Your task to perform on an android device: turn off picture-in-picture Image 0: 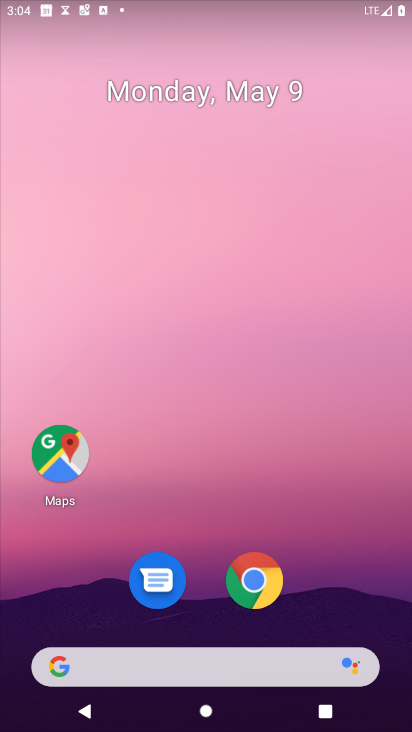
Step 0: drag from (343, 555) to (265, 65)
Your task to perform on an android device: turn off picture-in-picture Image 1: 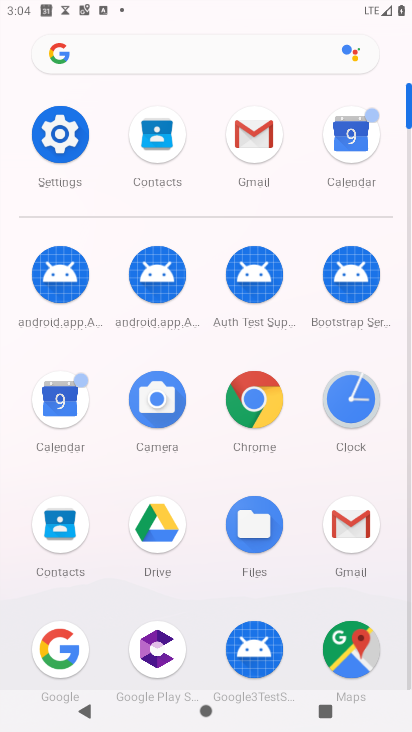
Step 1: click (270, 395)
Your task to perform on an android device: turn off picture-in-picture Image 2: 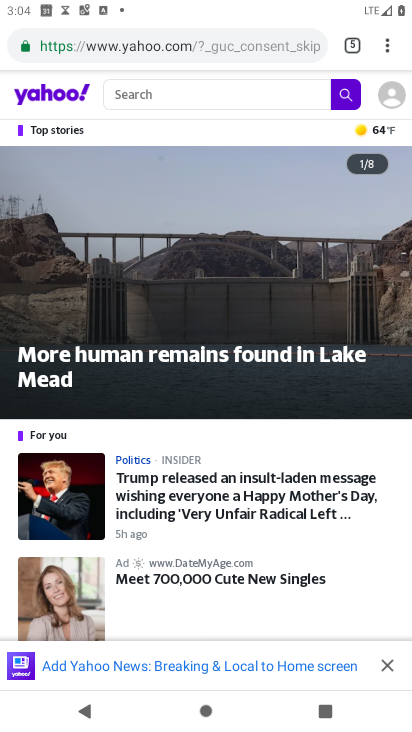
Step 2: press home button
Your task to perform on an android device: turn off picture-in-picture Image 3: 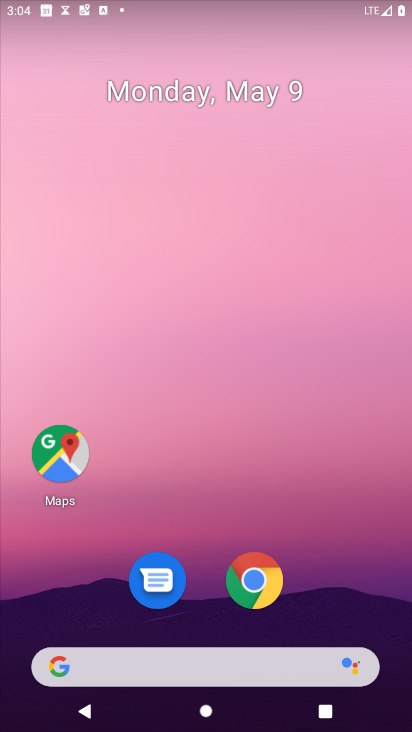
Step 3: drag from (320, 580) to (227, 132)
Your task to perform on an android device: turn off picture-in-picture Image 4: 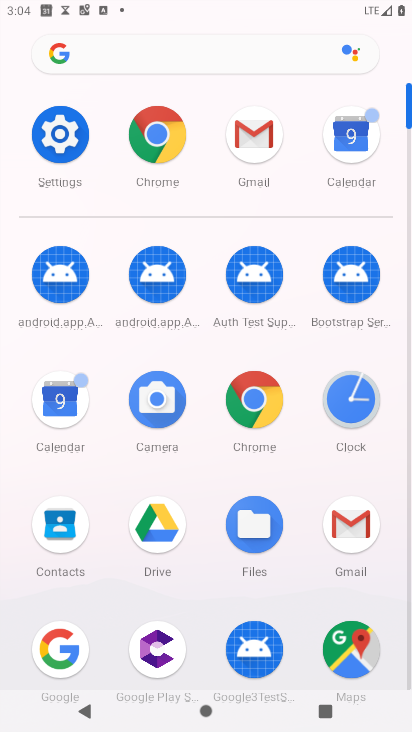
Step 4: click (65, 129)
Your task to perform on an android device: turn off picture-in-picture Image 5: 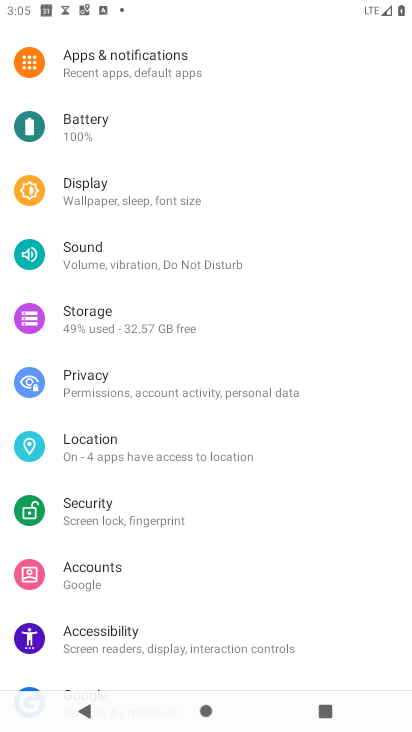
Step 5: click (170, 65)
Your task to perform on an android device: turn off picture-in-picture Image 6: 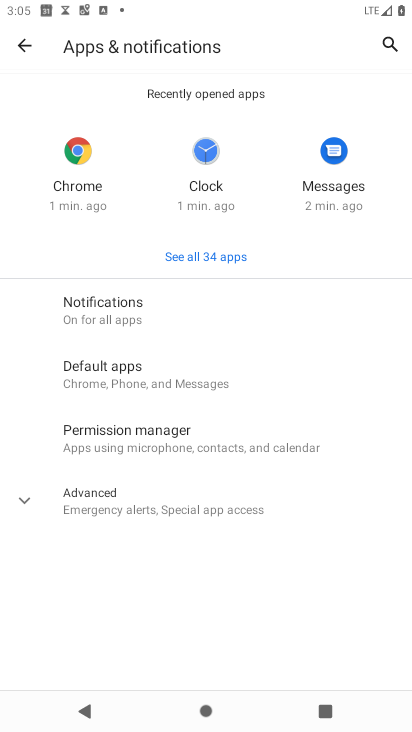
Step 6: click (169, 502)
Your task to perform on an android device: turn off picture-in-picture Image 7: 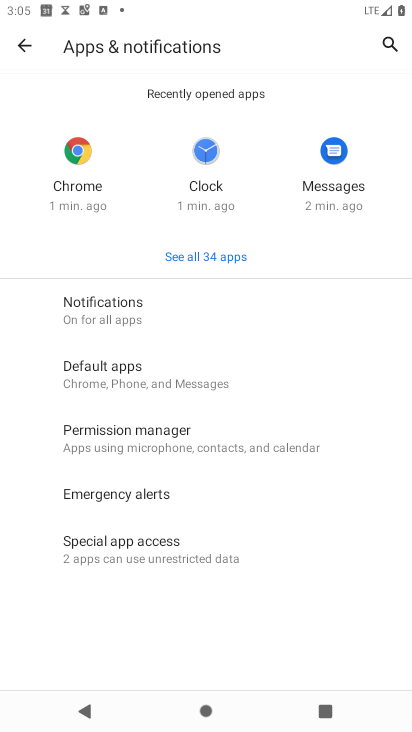
Step 7: click (181, 557)
Your task to perform on an android device: turn off picture-in-picture Image 8: 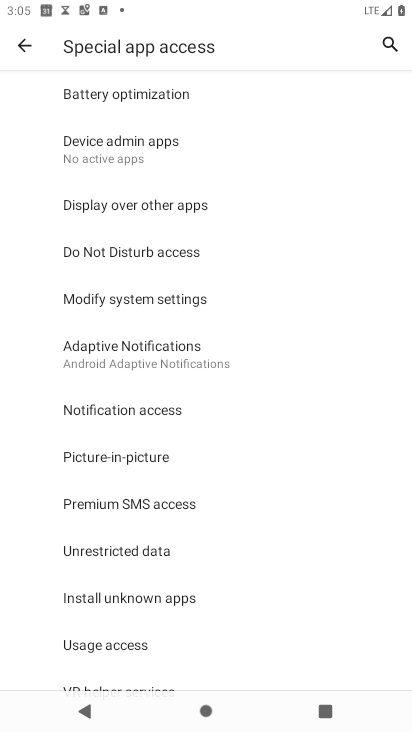
Step 8: click (165, 463)
Your task to perform on an android device: turn off picture-in-picture Image 9: 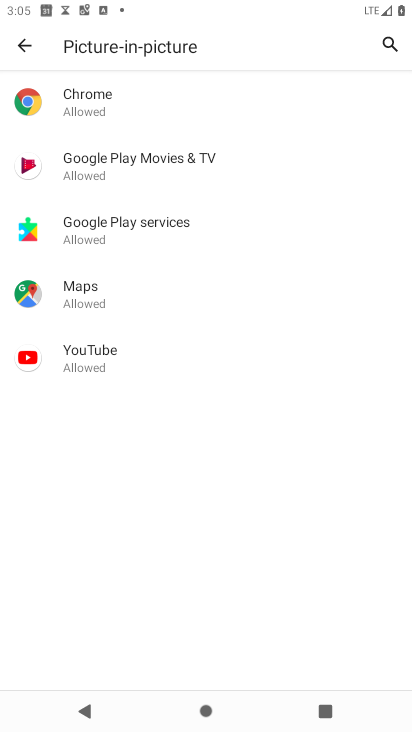
Step 9: click (187, 103)
Your task to perform on an android device: turn off picture-in-picture Image 10: 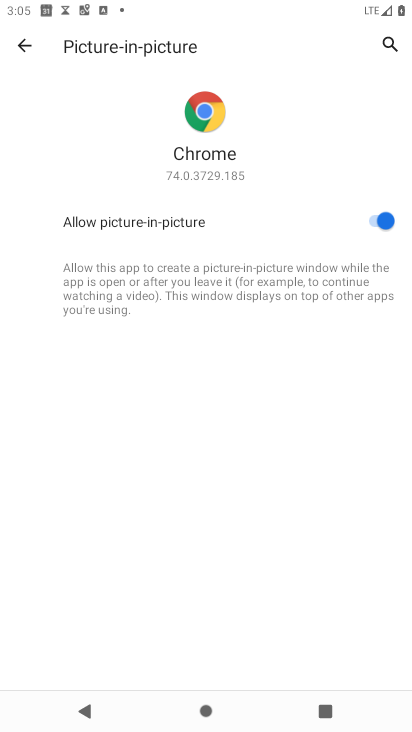
Step 10: click (383, 218)
Your task to perform on an android device: turn off picture-in-picture Image 11: 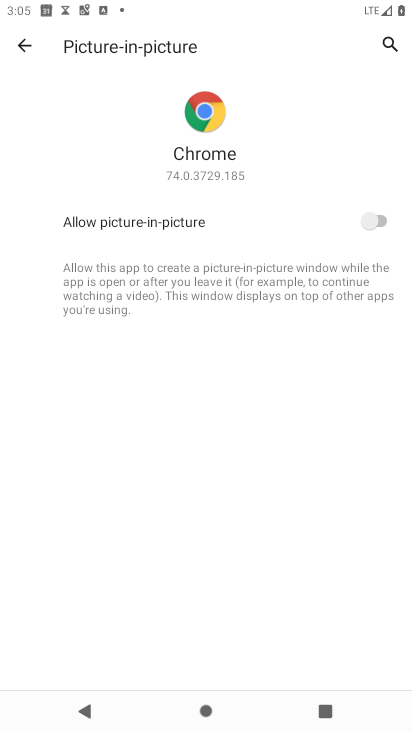
Step 11: task complete